Your task to perform on an android device: What's the weather going to be this weekend? Image 0: 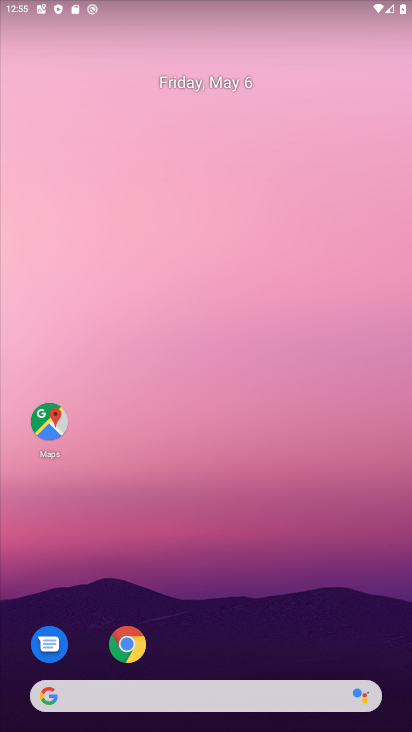
Step 0: click (230, 703)
Your task to perform on an android device: What's the weather going to be this weekend? Image 1: 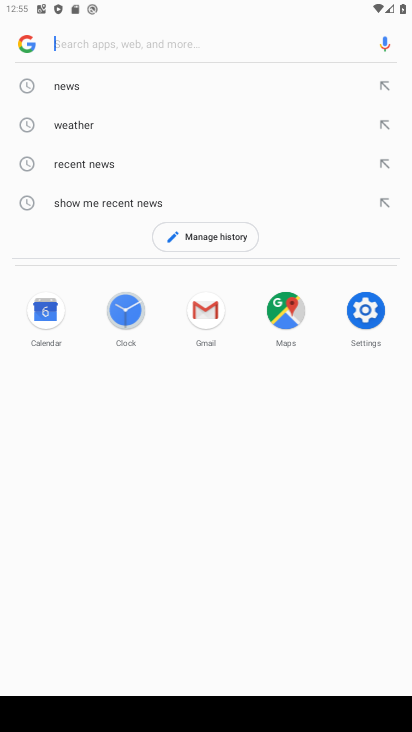
Step 1: type "What's the weather going to be this weekend?"
Your task to perform on an android device: What's the weather going to be this weekend? Image 2: 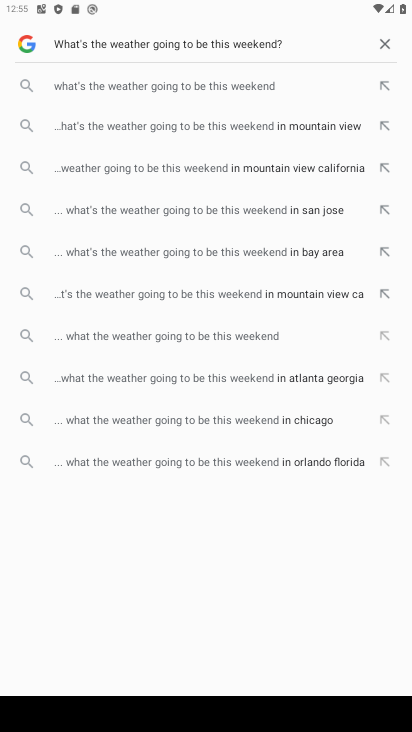
Step 2: type "What's the weather going to be this weekend?"
Your task to perform on an android device: What's the weather going to be this weekend? Image 3: 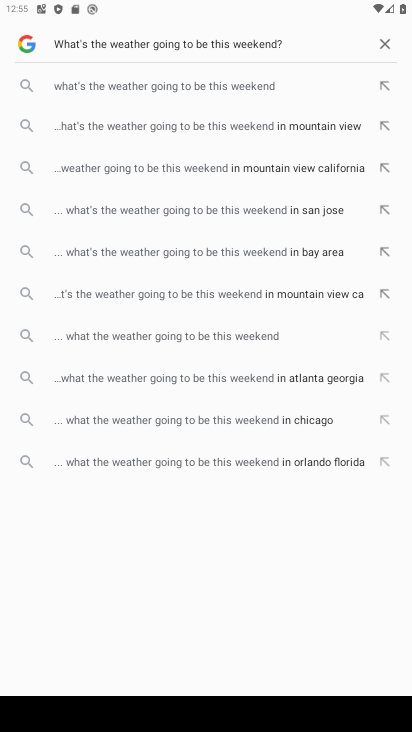
Step 3: click (289, 84)
Your task to perform on an android device: What's the weather going to be this weekend? Image 4: 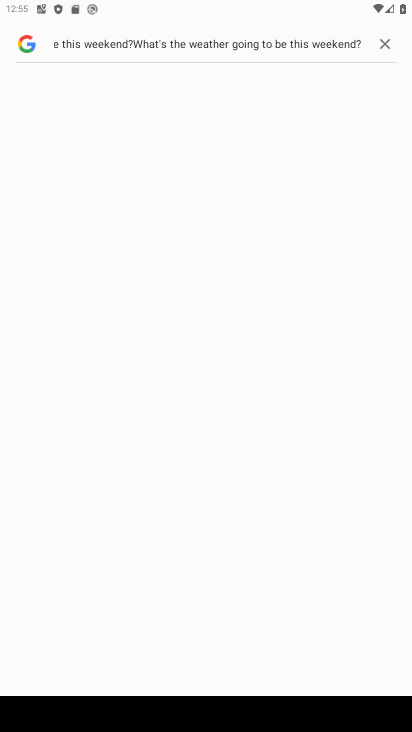
Step 4: click (367, 38)
Your task to perform on an android device: What's the weather going to be this weekend? Image 5: 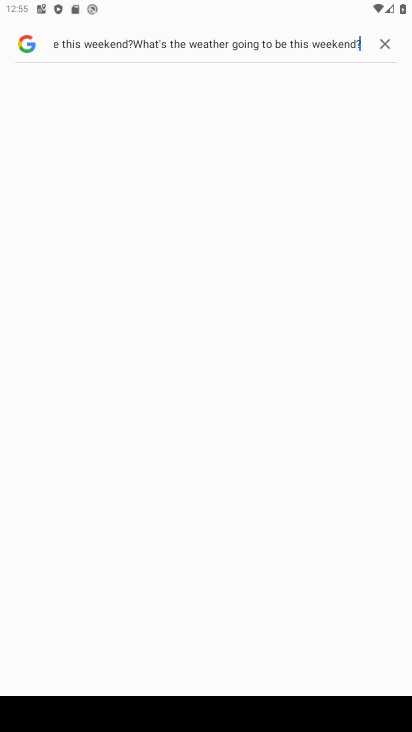
Step 5: click (381, 43)
Your task to perform on an android device: What's the weather going to be this weekend? Image 6: 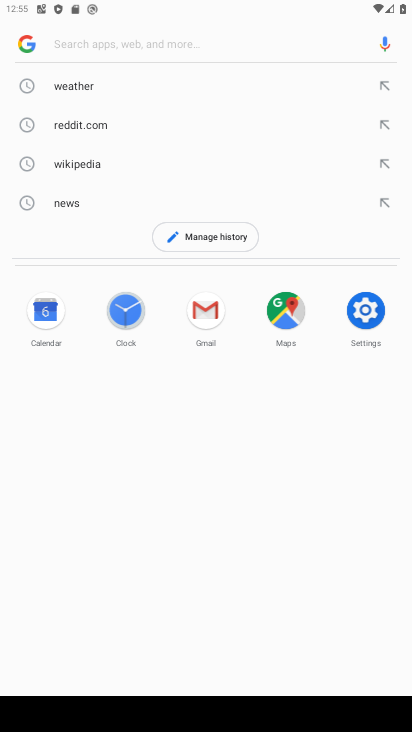
Step 6: type "What's the weather going to be this weekend?"
Your task to perform on an android device: What's the weather going to be this weekend? Image 7: 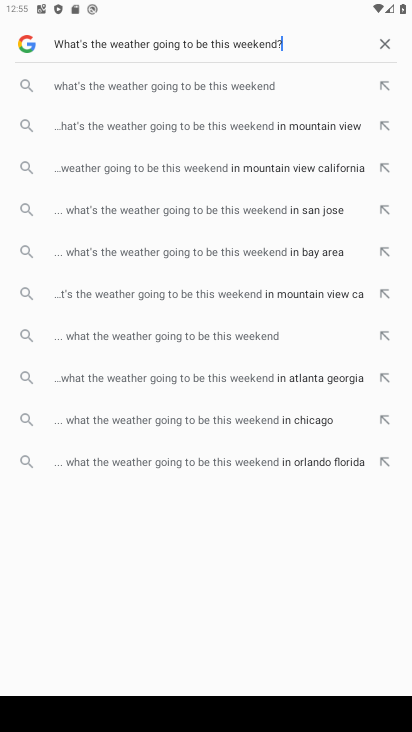
Step 7: click (264, 83)
Your task to perform on an android device: What's the weather going to be this weekend? Image 8: 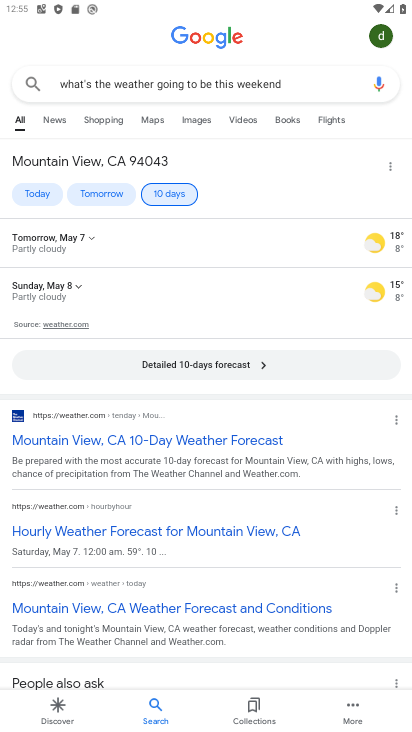
Step 8: task complete